Your task to perform on an android device: Is it going to rain this weekend? Image 0: 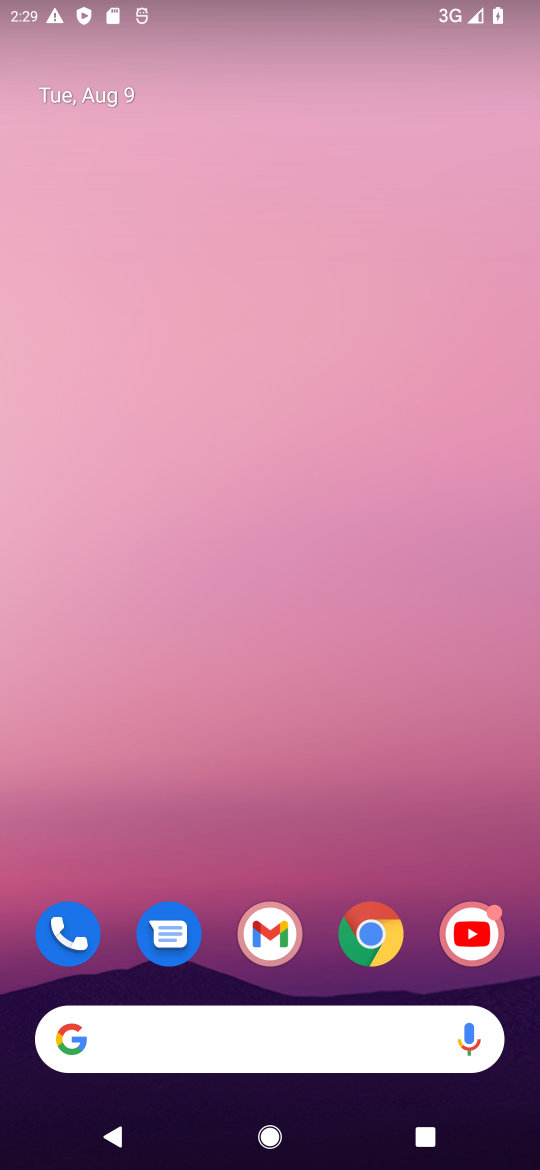
Step 0: drag from (312, 989) to (387, 152)
Your task to perform on an android device: Is it going to rain this weekend? Image 1: 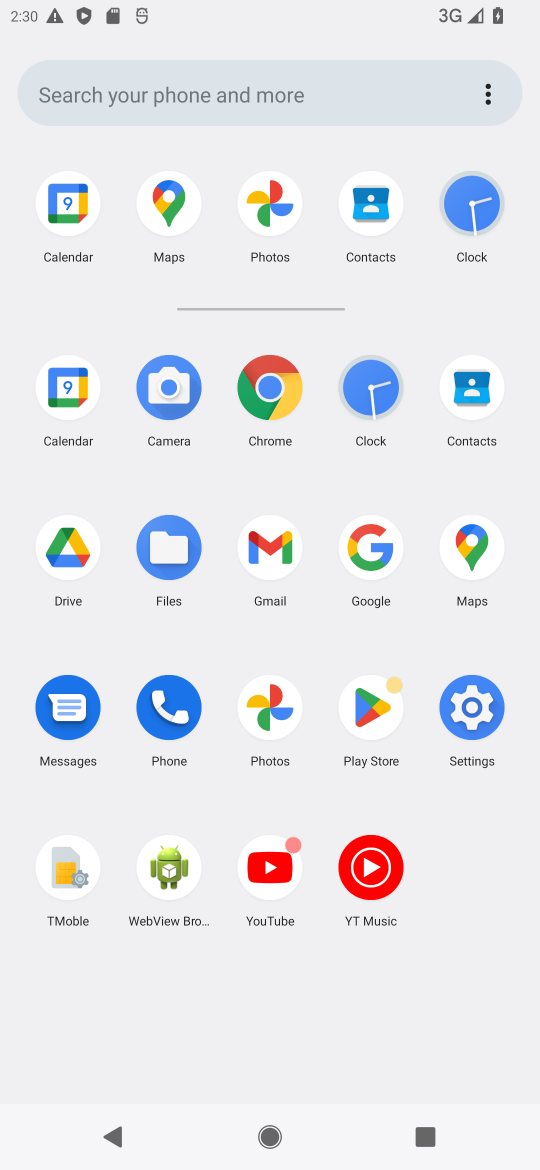
Step 1: click (182, 104)
Your task to perform on an android device: Is it going to rain this weekend? Image 2: 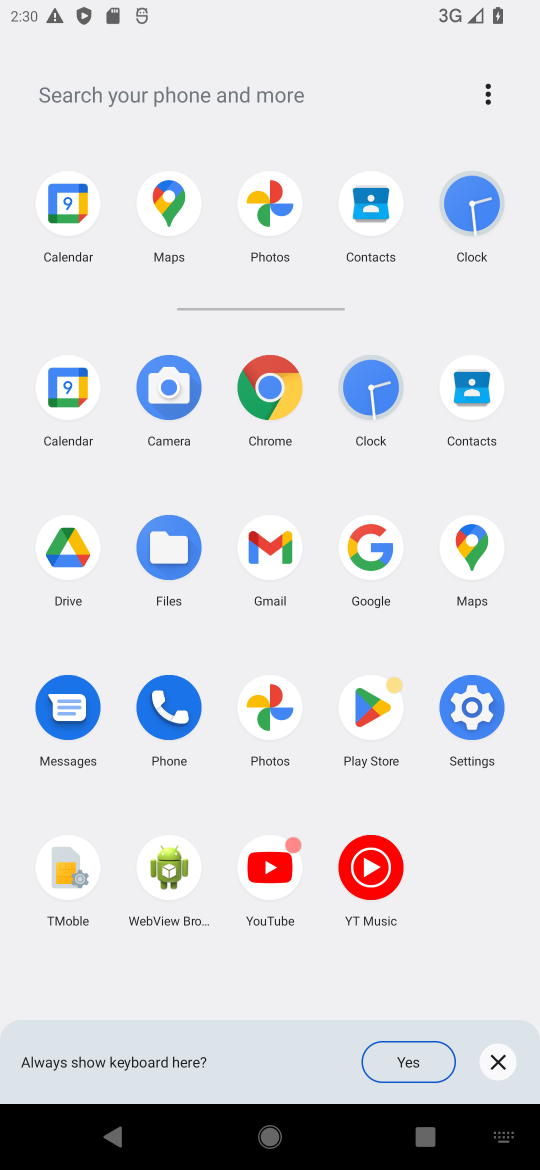
Step 2: type "weather"
Your task to perform on an android device: Is it going to rain this weekend? Image 3: 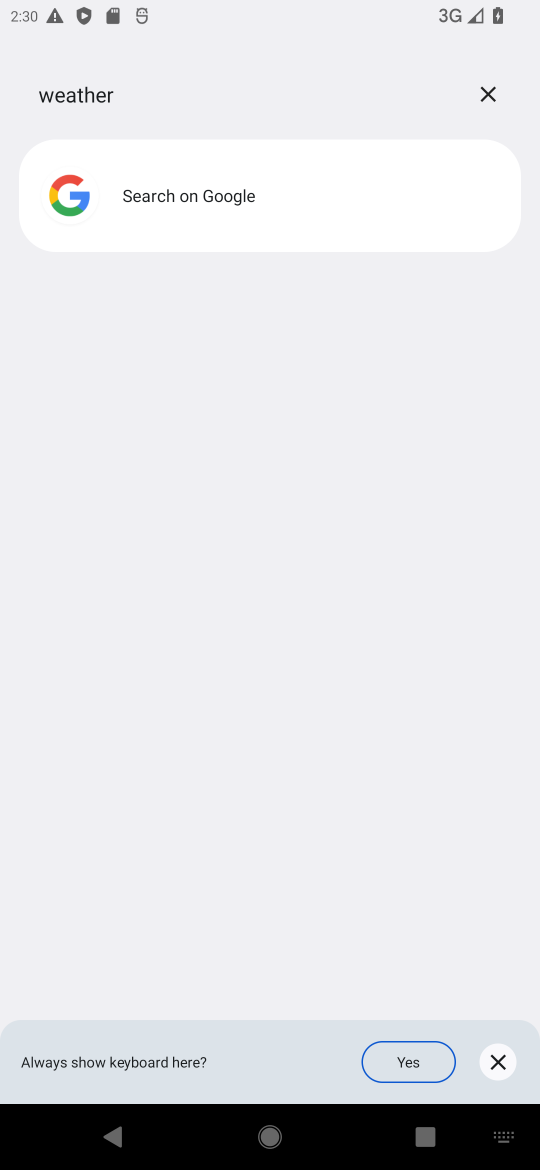
Step 3: task complete